Your task to perform on an android device: Open Maps and search for coffee Image 0: 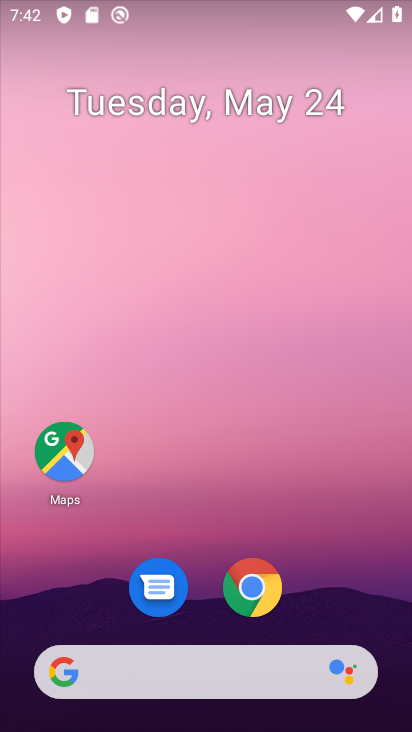
Step 0: click (50, 449)
Your task to perform on an android device: Open Maps and search for coffee Image 1: 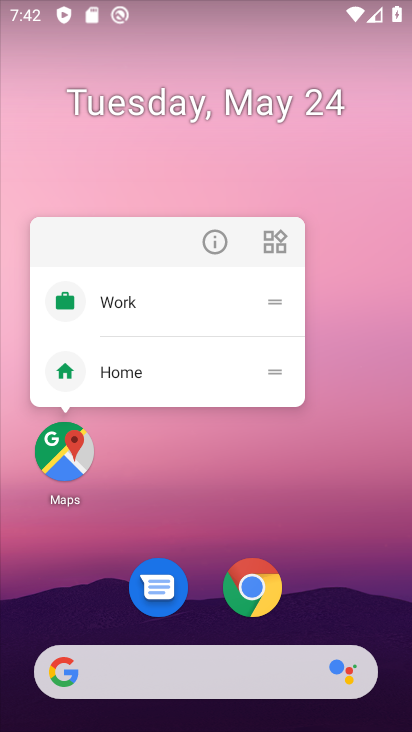
Step 1: click (72, 448)
Your task to perform on an android device: Open Maps and search for coffee Image 2: 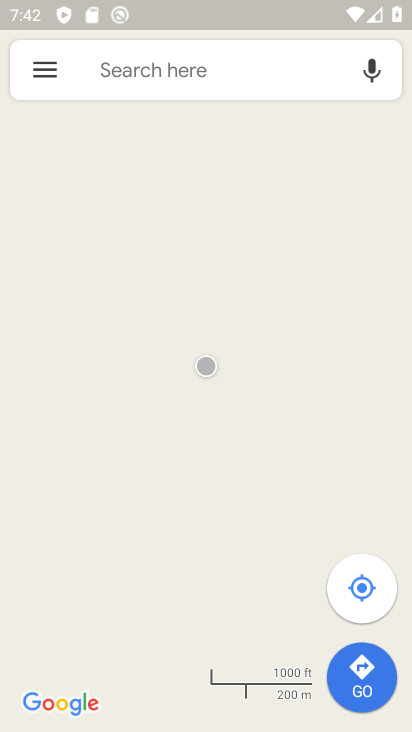
Step 2: click (170, 80)
Your task to perform on an android device: Open Maps and search for coffee Image 3: 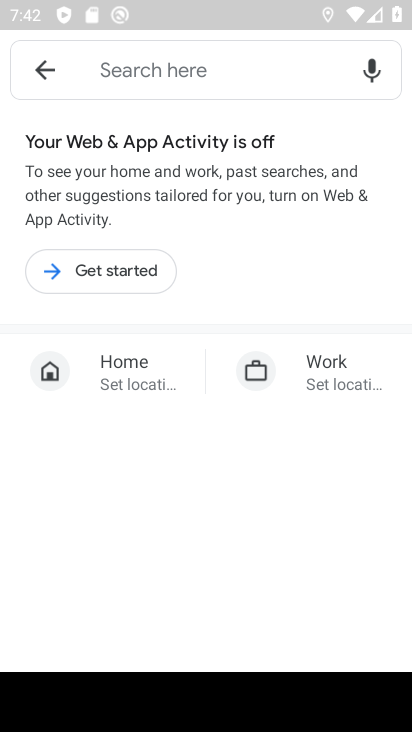
Step 3: type "coffee"
Your task to perform on an android device: Open Maps and search for coffee Image 4: 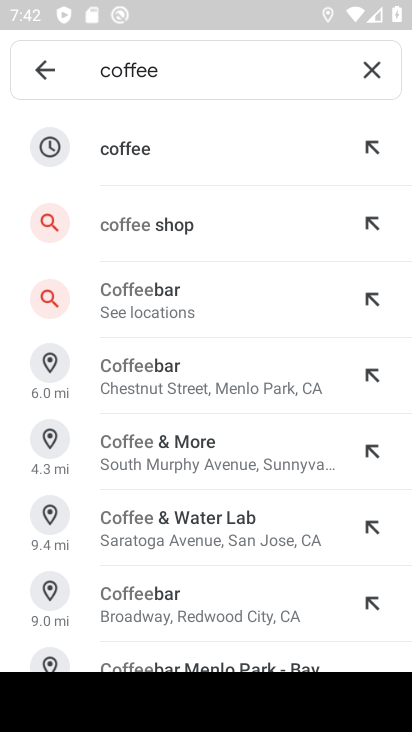
Step 4: click (183, 147)
Your task to perform on an android device: Open Maps and search for coffee Image 5: 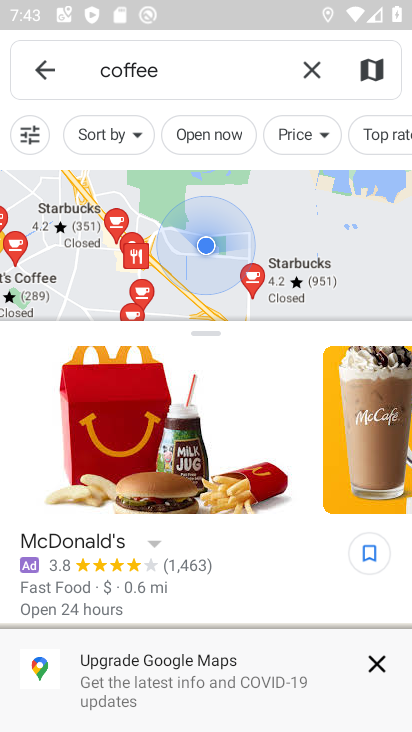
Step 5: task complete